Your task to perform on an android device: toggle notifications settings in the gmail app Image 0: 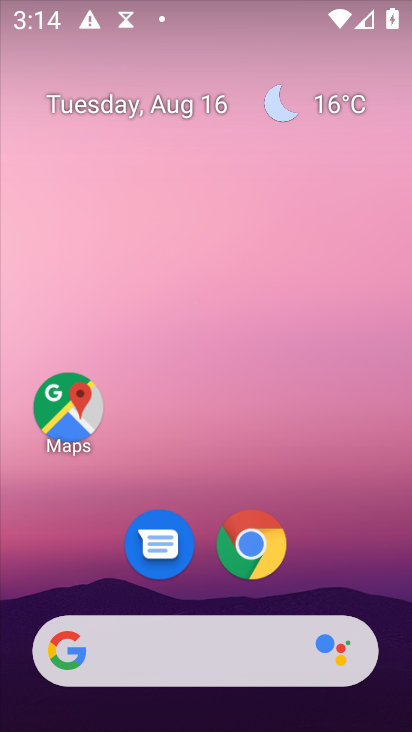
Step 0: drag from (170, 668) to (319, 75)
Your task to perform on an android device: toggle notifications settings in the gmail app Image 1: 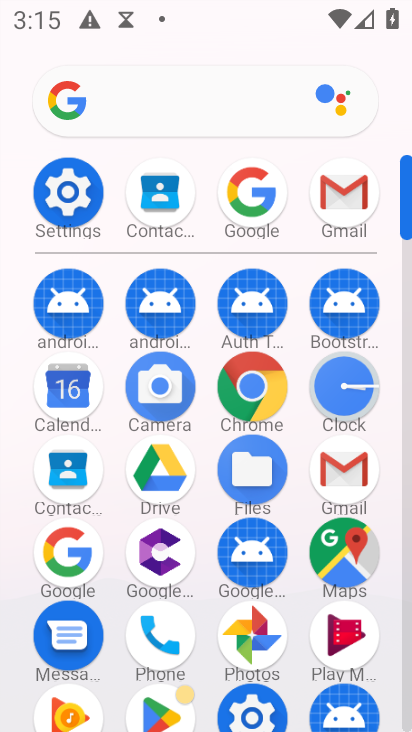
Step 1: click (342, 193)
Your task to perform on an android device: toggle notifications settings in the gmail app Image 2: 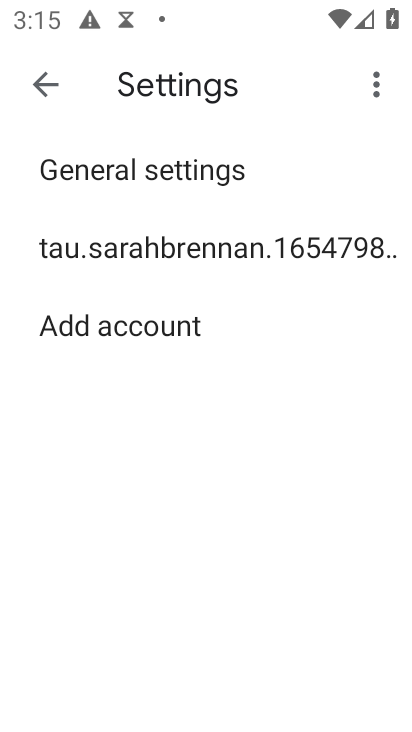
Step 2: click (288, 252)
Your task to perform on an android device: toggle notifications settings in the gmail app Image 3: 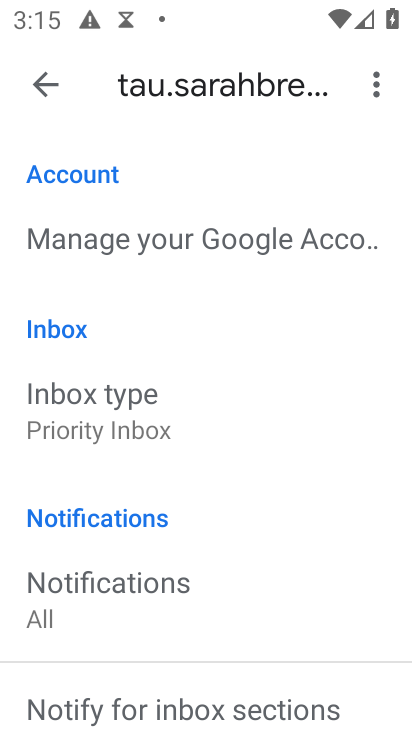
Step 3: drag from (194, 571) to (247, 466)
Your task to perform on an android device: toggle notifications settings in the gmail app Image 4: 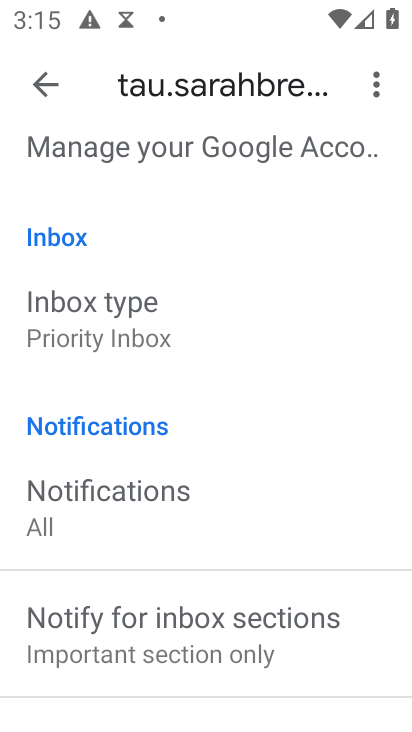
Step 4: drag from (190, 638) to (318, 464)
Your task to perform on an android device: toggle notifications settings in the gmail app Image 5: 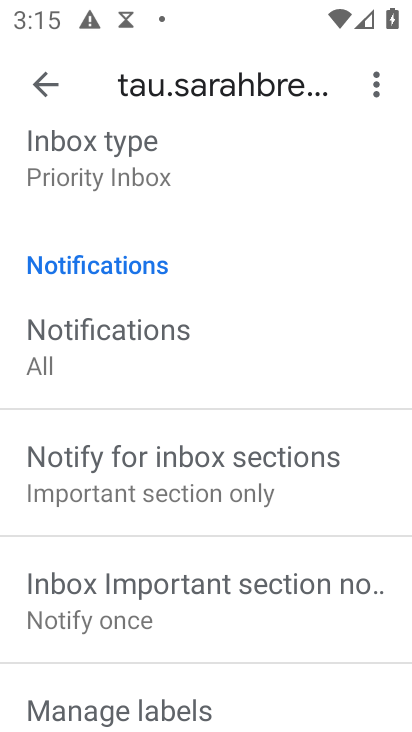
Step 5: drag from (224, 640) to (327, 475)
Your task to perform on an android device: toggle notifications settings in the gmail app Image 6: 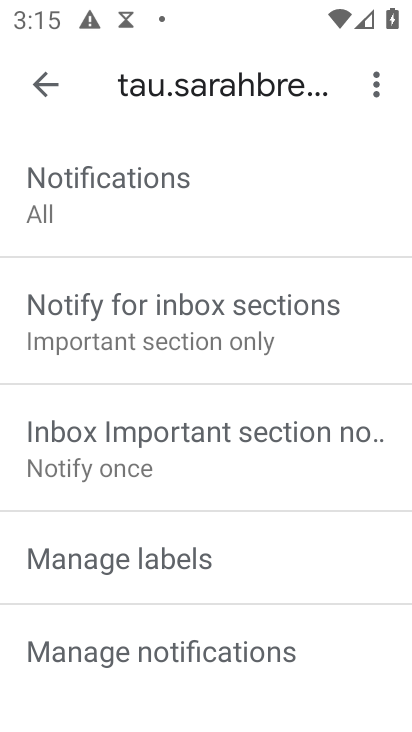
Step 6: click (208, 644)
Your task to perform on an android device: toggle notifications settings in the gmail app Image 7: 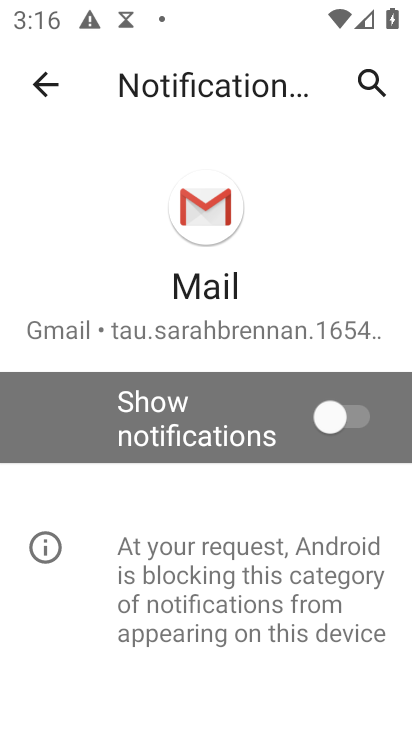
Step 7: click (349, 416)
Your task to perform on an android device: toggle notifications settings in the gmail app Image 8: 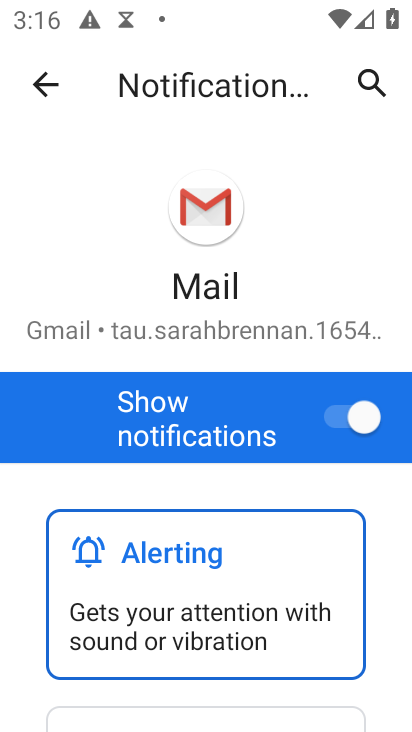
Step 8: task complete